Your task to perform on an android device: Is it going to rain tomorrow? Image 0: 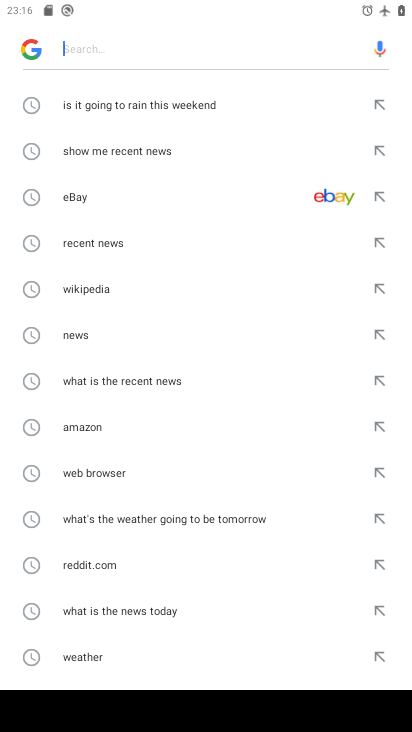
Step 0: press home button
Your task to perform on an android device: Is it going to rain tomorrow? Image 1: 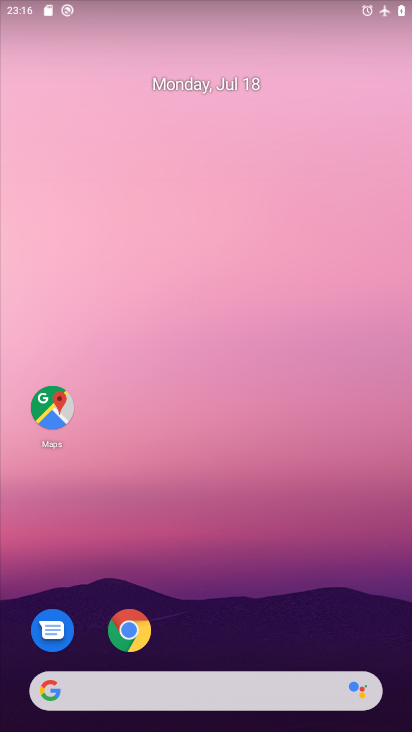
Step 1: click (119, 631)
Your task to perform on an android device: Is it going to rain tomorrow? Image 2: 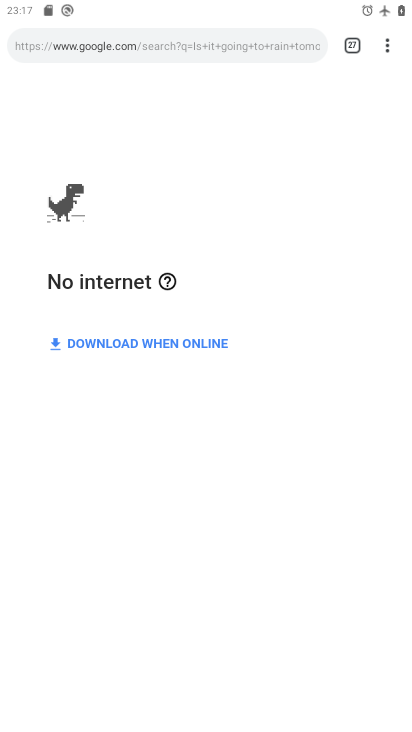
Step 2: click (389, 38)
Your task to perform on an android device: Is it going to rain tomorrow? Image 3: 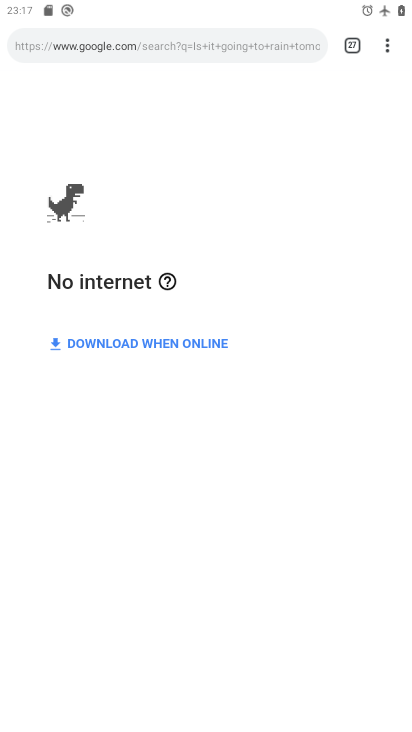
Step 3: click (387, 37)
Your task to perform on an android device: Is it going to rain tomorrow? Image 4: 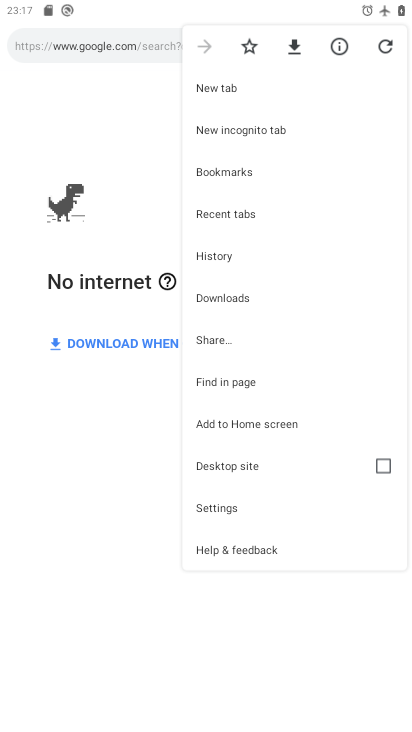
Step 4: click (207, 91)
Your task to perform on an android device: Is it going to rain tomorrow? Image 5: 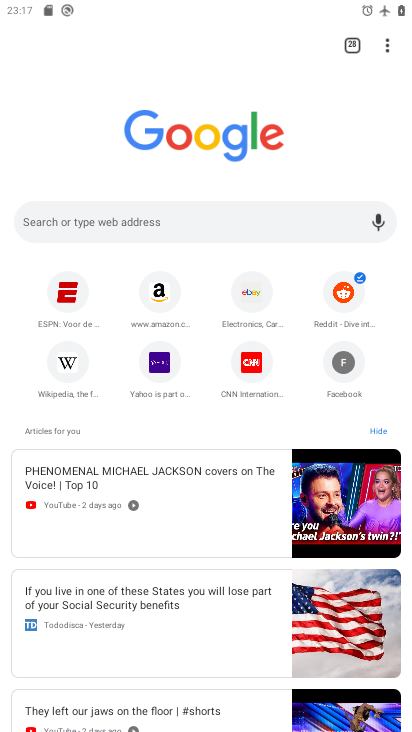
Step 5: click (209, 215)
Your task to perform on an android device: Is it going to rain tomorrow? Image 6: 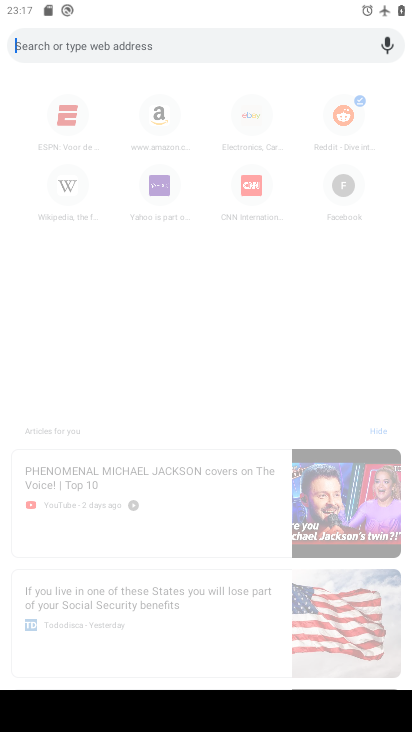
Step 6: type "Is it going to rain tomorrow "
Your task to perform on an android device: Is it going to rain tomorrow? Image 7: 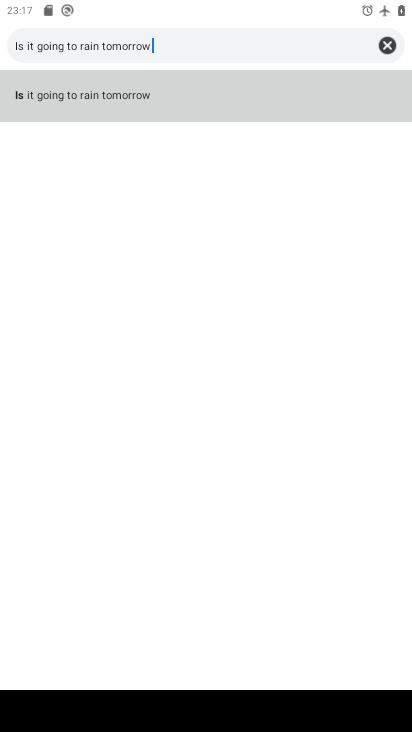
Step 7: click (152, 115)
Your task to perform on an android device: Is it going to rain tomorrow? Image 8: 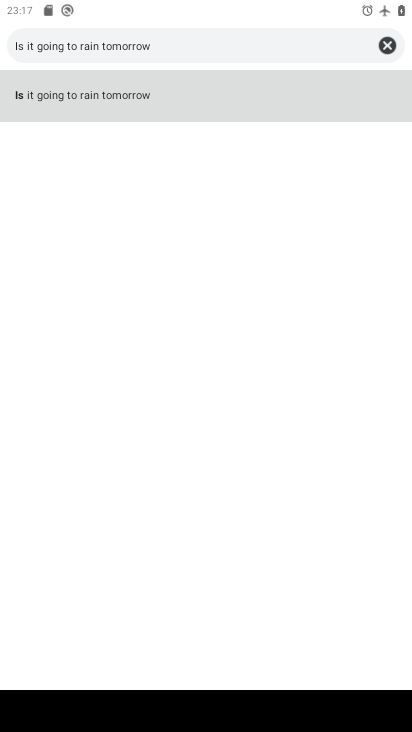
Step 8: click (150, 99)
Your task to perform on an android device: Is it going to rain tomorrow? Image 9: 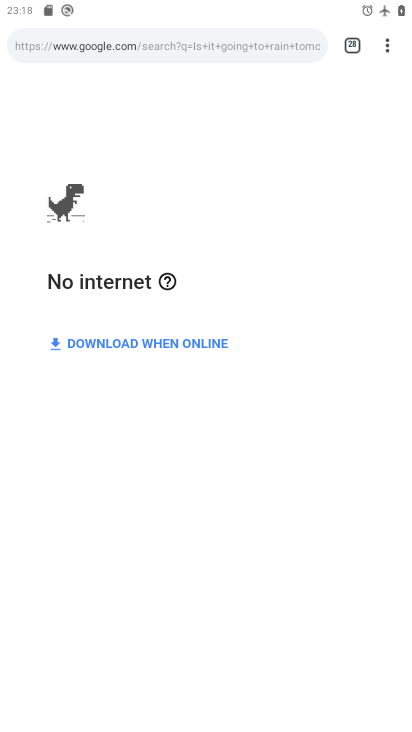
Step 9: task complete